Your task to perform on an android device: turn on wifi Image 0: 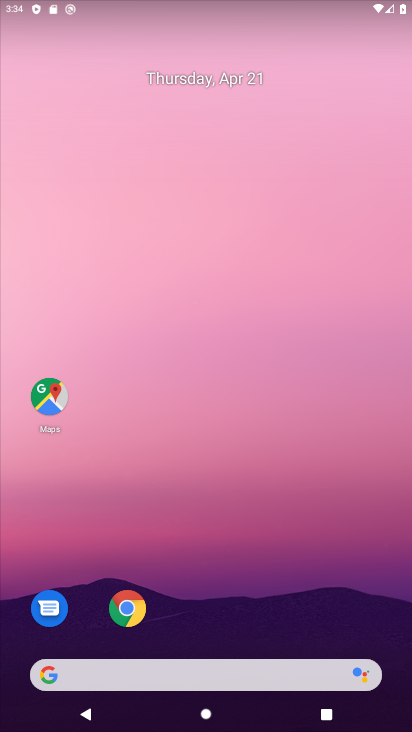
Step 0: press home button
Your task to perform on an android device: turn on wifi Image 1: 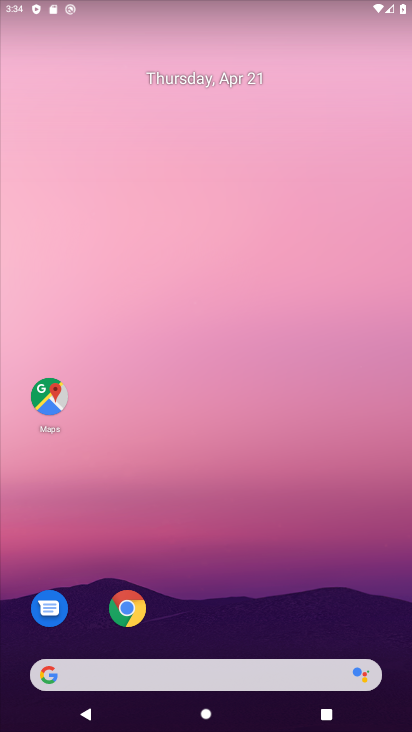
Step 1: drag from (307, 543) to (323, 93)
Your task to perform on an android device: turn on wifi Image 2: 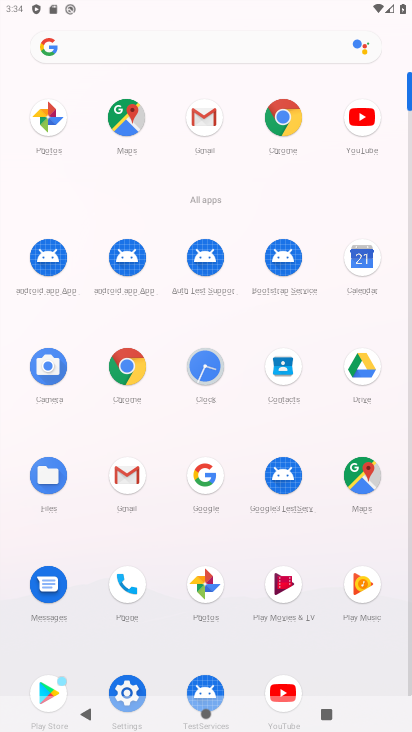
Step 2: drag from (196, 610) to (201, 325)
Your task to perform on an android device: turn on wifi Image 3: 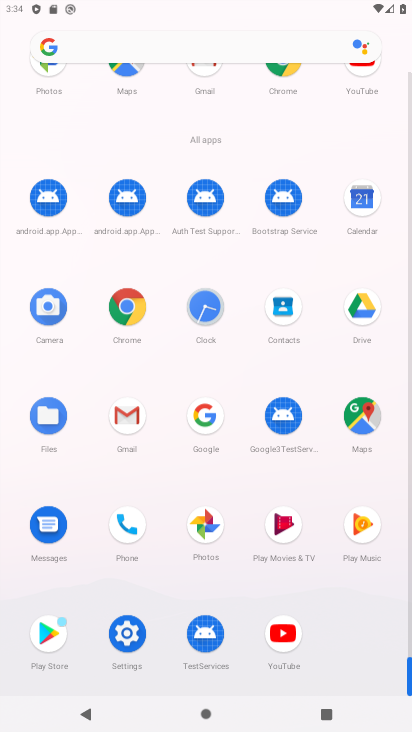
Step 3: click (132, 623)
Your task to perform on an android device: turn on wifi Image 4: 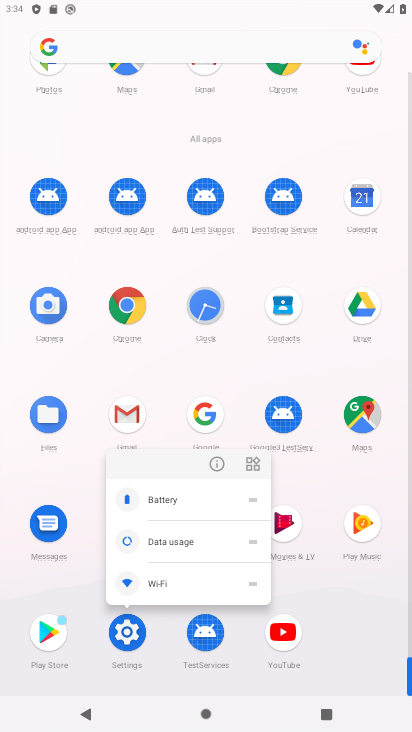
Step 4: click (131, 641)
Your task to perform on an android device: turn on wifi Image 5: 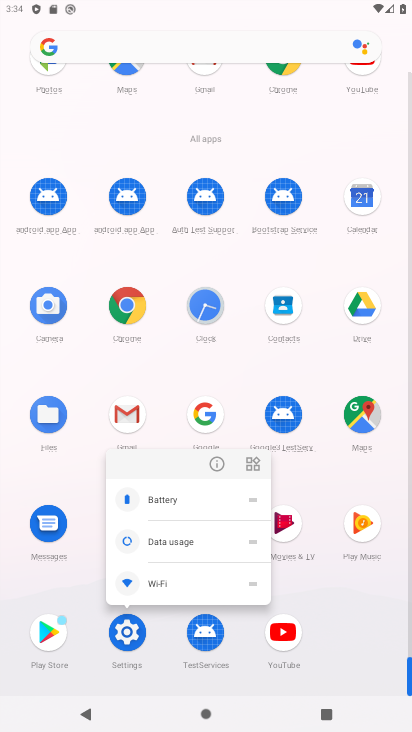
Step 5: click (133, 636)
Your task to perform on an android device: turn on wifi Image 6: 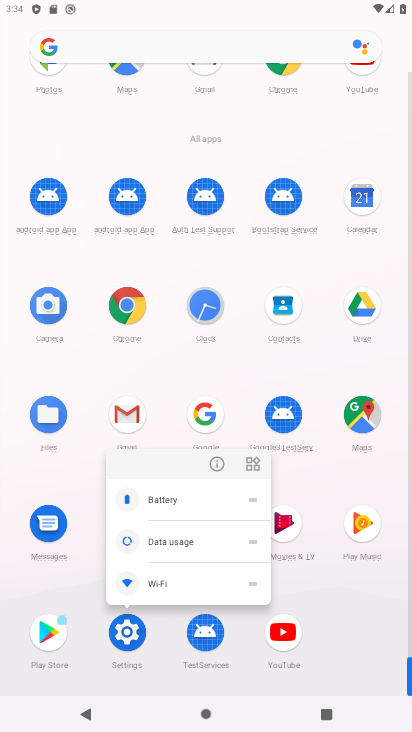
Step 6: click (133, 636)
Your task to perform on an android device: turn on wifi Image 7: 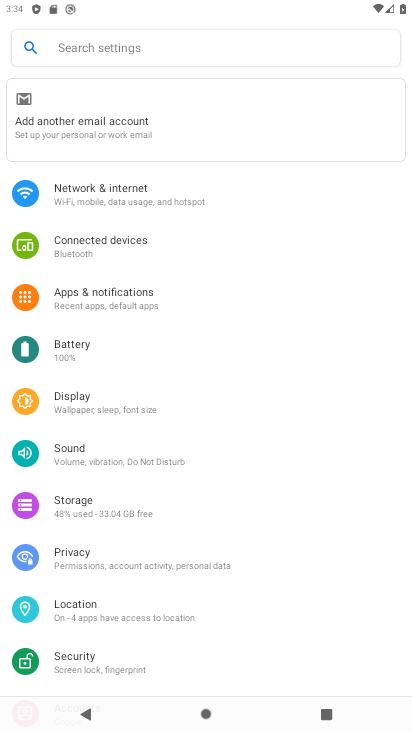
Step 7: click (132, 203)
Your task to perform on an android device: turn on wifi Image 8: 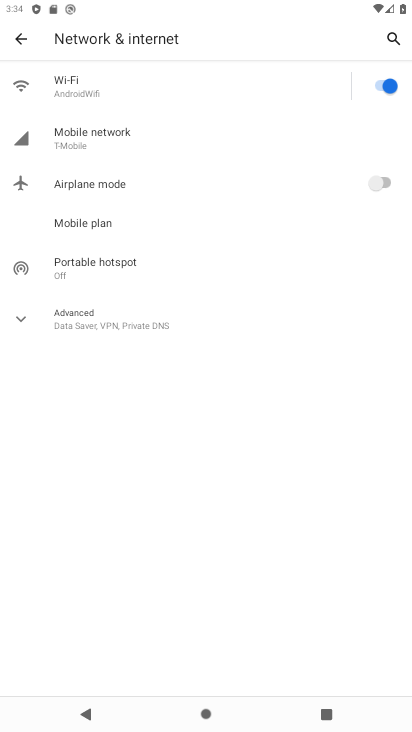
Step 8: task complete